Your task to perform on an android device: find snoozed emails in the gmail app Image 0: 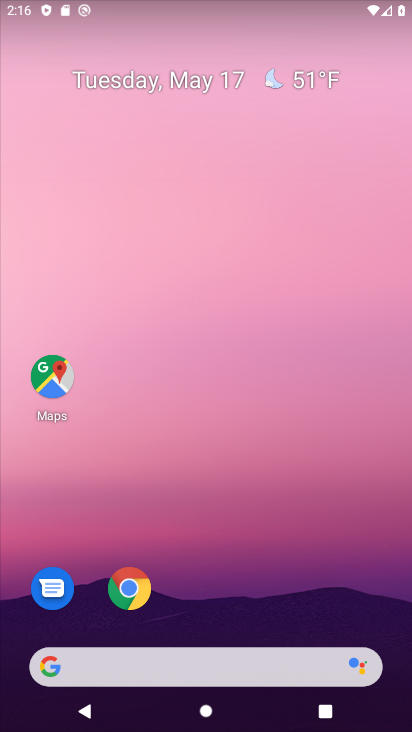
Step 0: drag from (268, 488) to (216, 52)
Your task to perform on an android device: find snoozed emails in the gmail app Image 1: 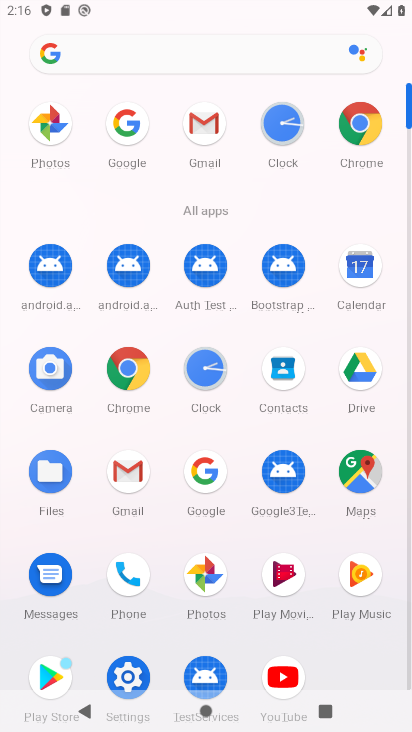
Step 1: click (205, 126)
Your task to perform on an android device: find snoozed emails in the gmail app Image 2: 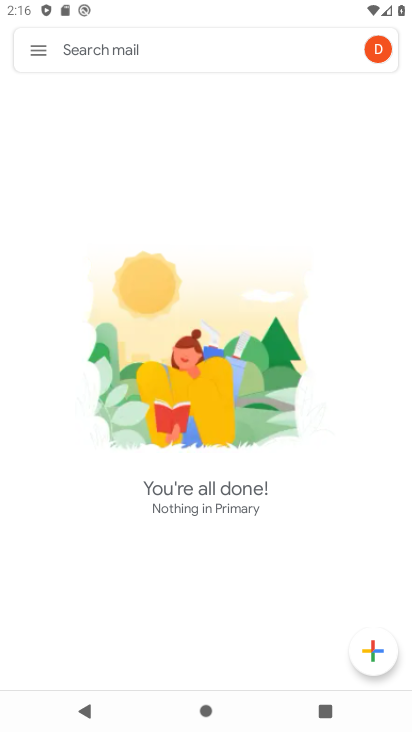
Step 2: click (47, 49)
Your task to perform on an android device: find snoozed emails in the gmail app Image 3: 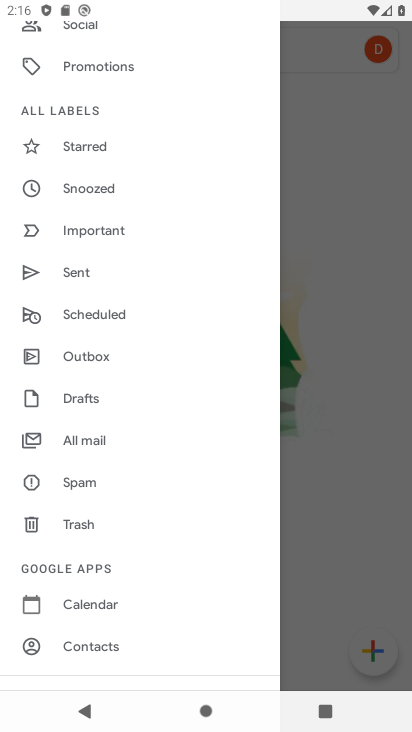
Step 3: click (81, 188)
Your task to perform on an android device: find snoozed emails in the gmail app Image 4: 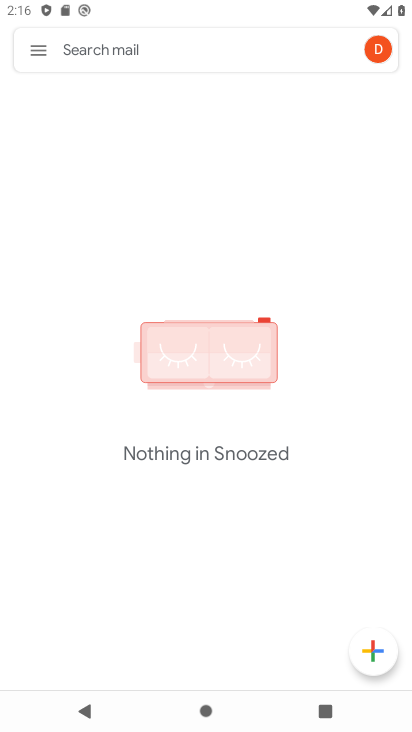
Step 4: task complete